Your task to perform on an android device: Open sound settings Image 0: 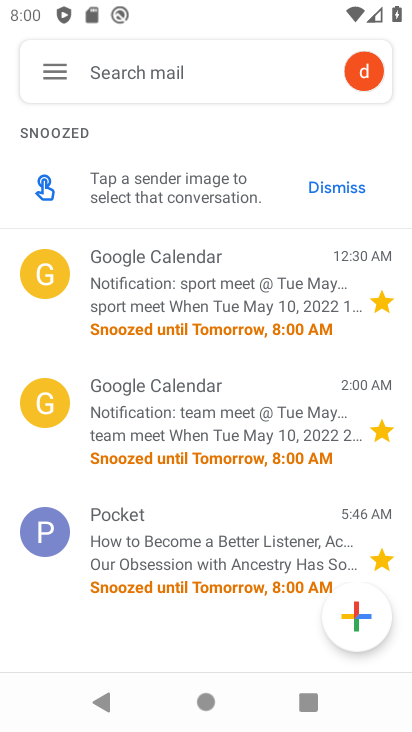
Step 0: press back button
Your task to perform on an android device: Open sound settings Image 1: 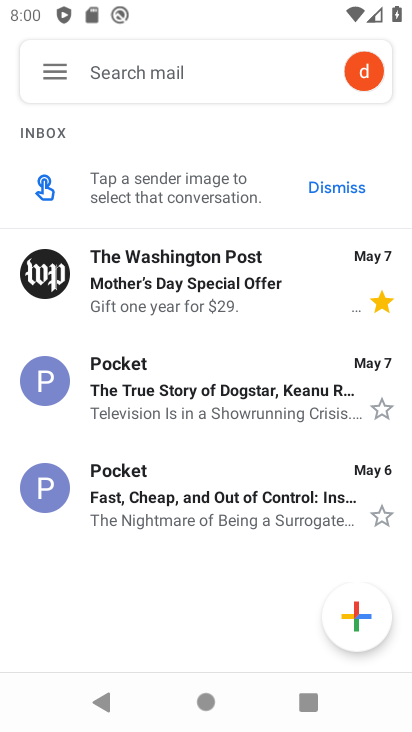
Step 1: press back button
Your task to perform on an android device: Open sound settings Image 2: 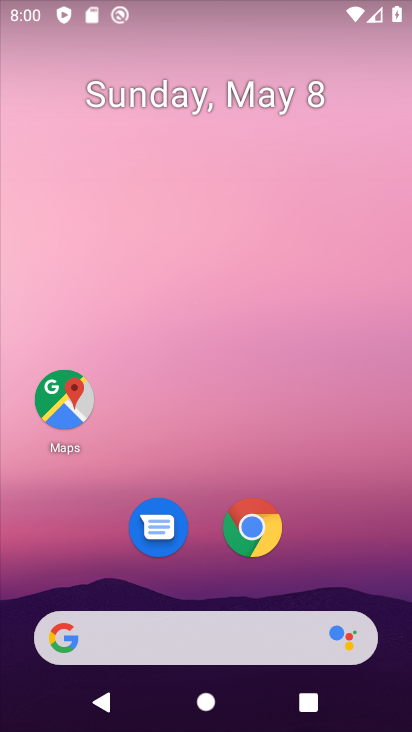
Step 2: drag from (403, 660) to (319, 1)
Your task to perform on an android device: Open sound settings Image 3: 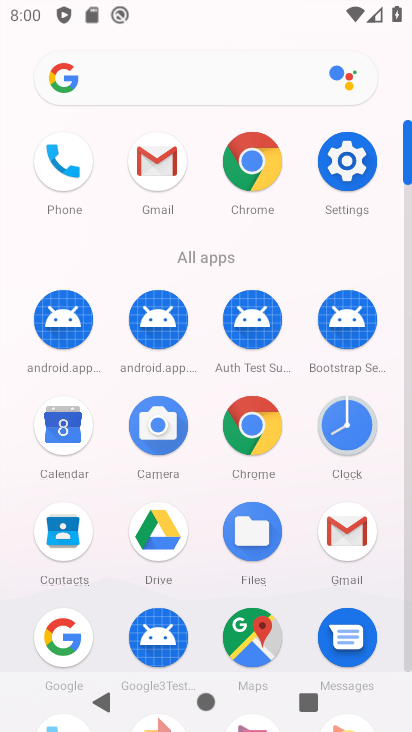
Step 3: click (349, 159)
Your task to perform on an android device: Open sound settings Image 4: 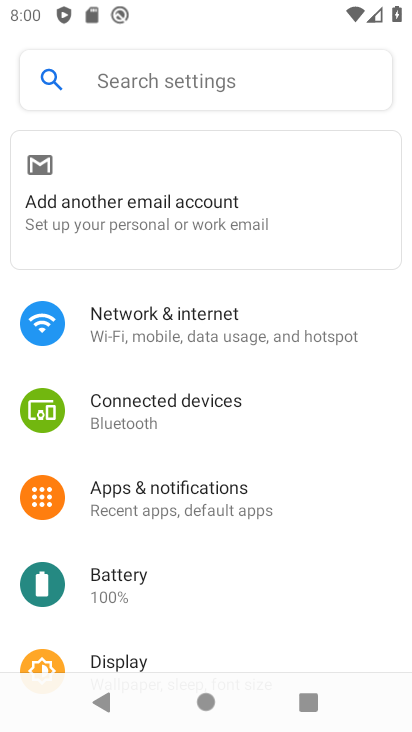
Step 4: drag from (340, 602) to (325, 131)
Your task to perform on an android device: Open sound settings Image 5: 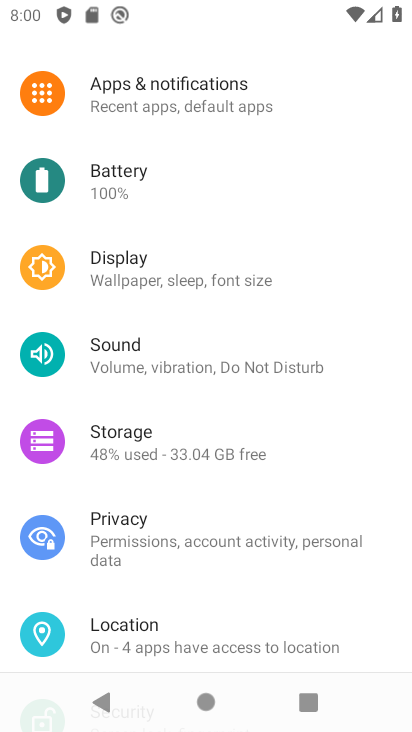
Step 5: click (174, 354)
Your task to perform on an android device: Open sound settings Image 6: 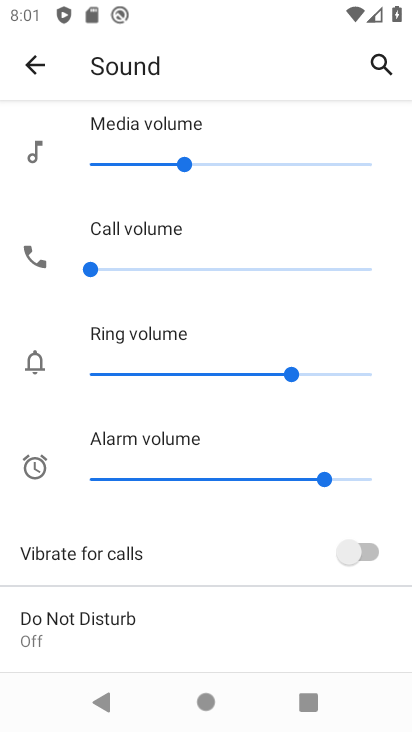
Step 6: drag from (189, 590) to (220, 110)
Your task to perform on an android device: Open sound settings Image 7: 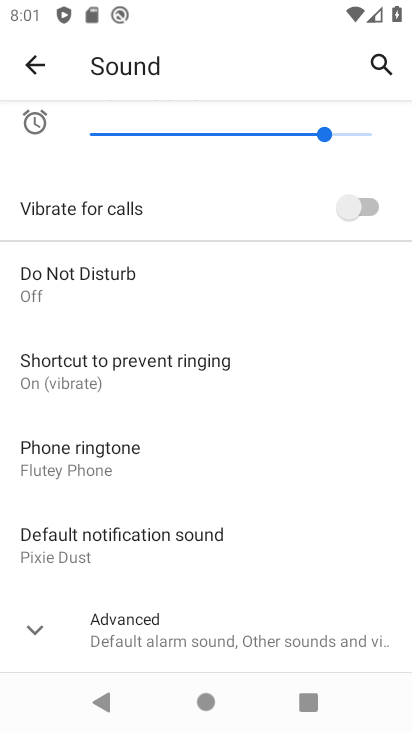
Step 7: click (40, 628)
Your task to perform on an android device: Open sound settings Image 8: 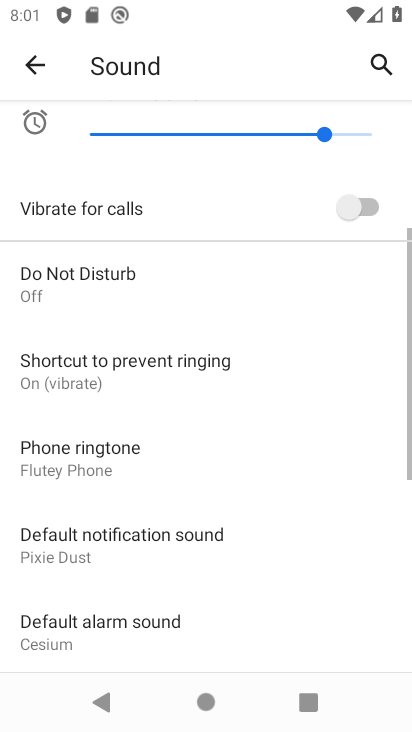
Step 8: task complete